Your task to perform on an android device: turn on airplane mode Image 0: 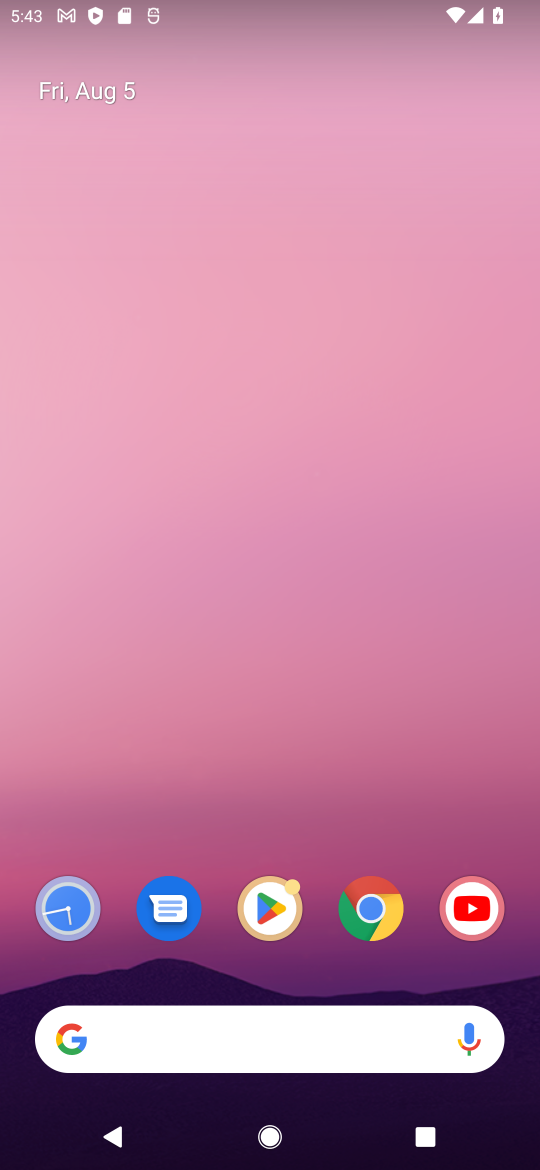
Step 0: drag from (225, 947) to (535, 1165)
Your task to perform on an android device: turn on airplane mode Image 1: 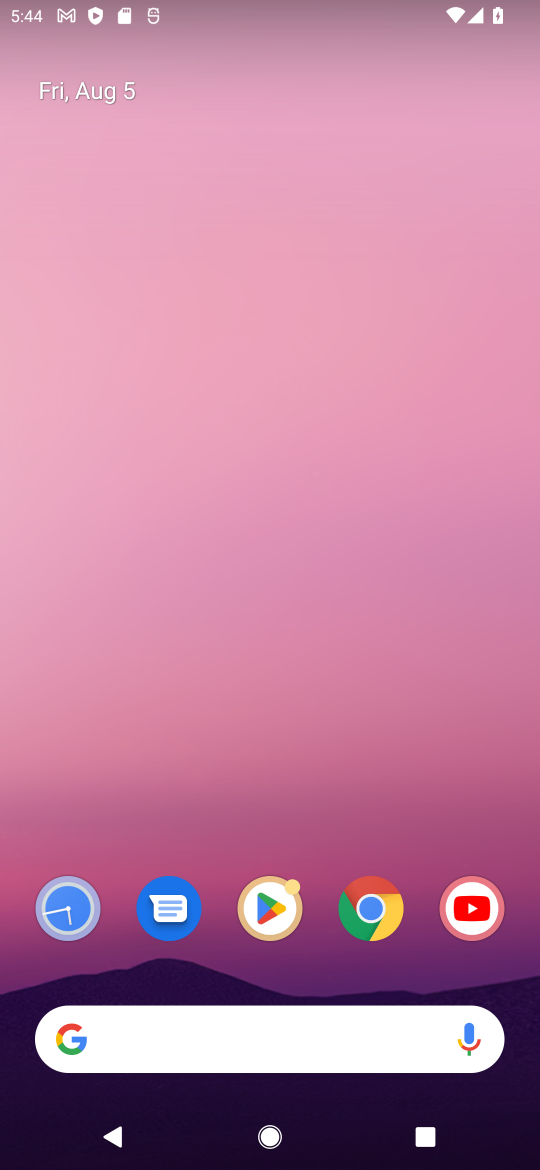
Step 1: click (465, 742)
Your task to perform on an android device: turn on airplane mode Image 2: 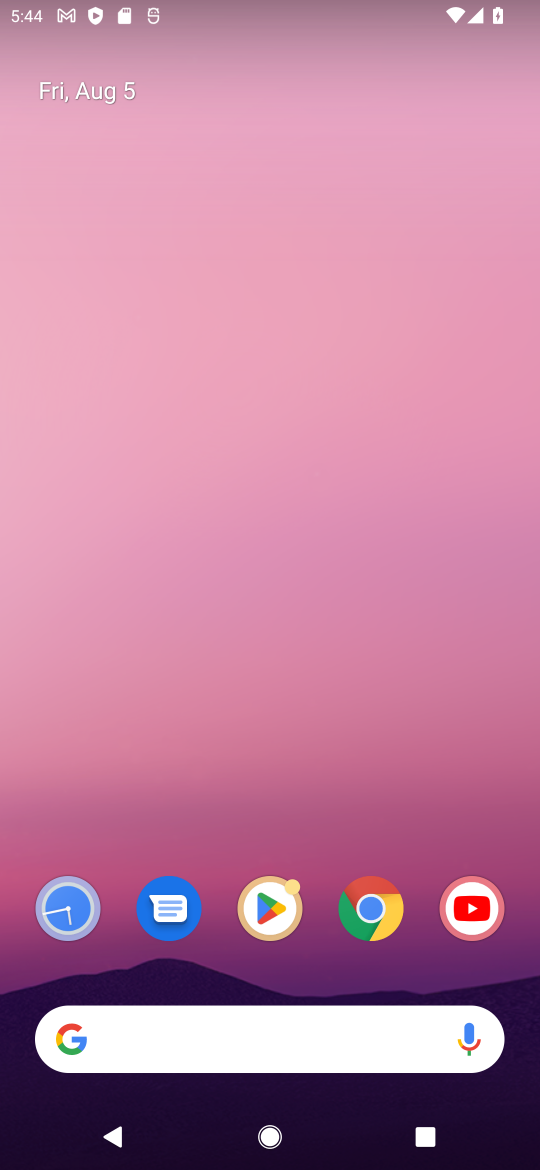
Step 2: drag from (243, 712) to (263, 302)
Your task to perform on an android device: turn on airplane mode Image 3: 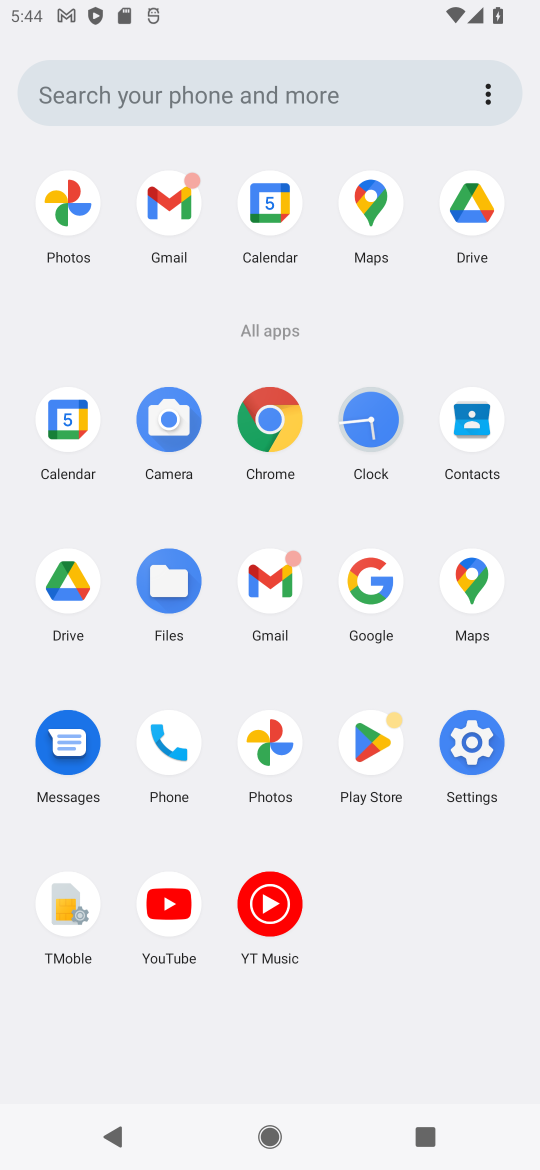
Step 3: click (473, 737)
Your task to perform on an android device: turn on airplane mode Image 4: 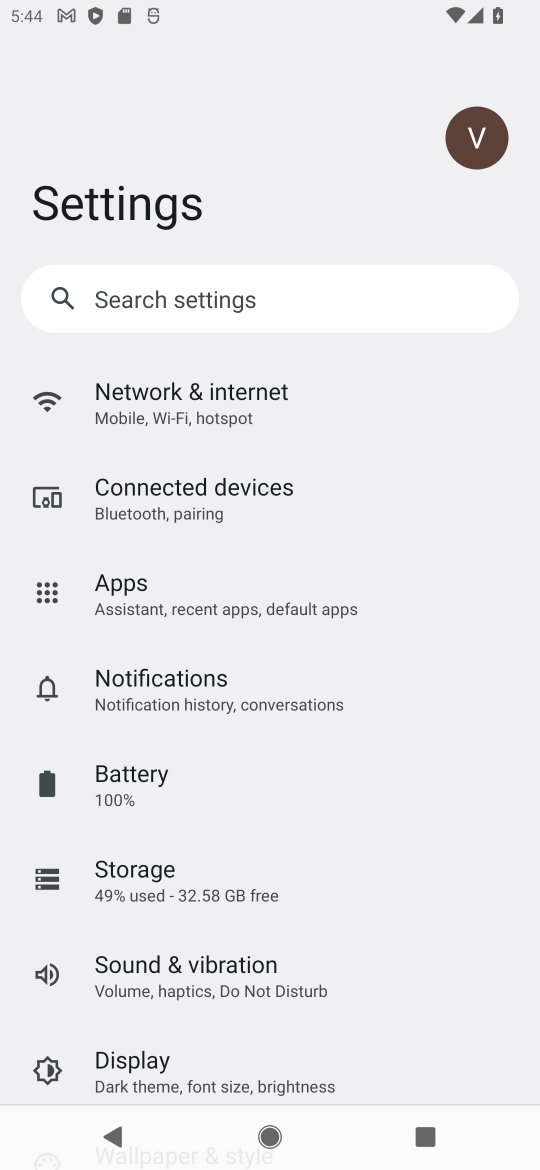
Step 4: click (168, 404)
Your task to perform on an android device: turn on airplane mode Image 5: 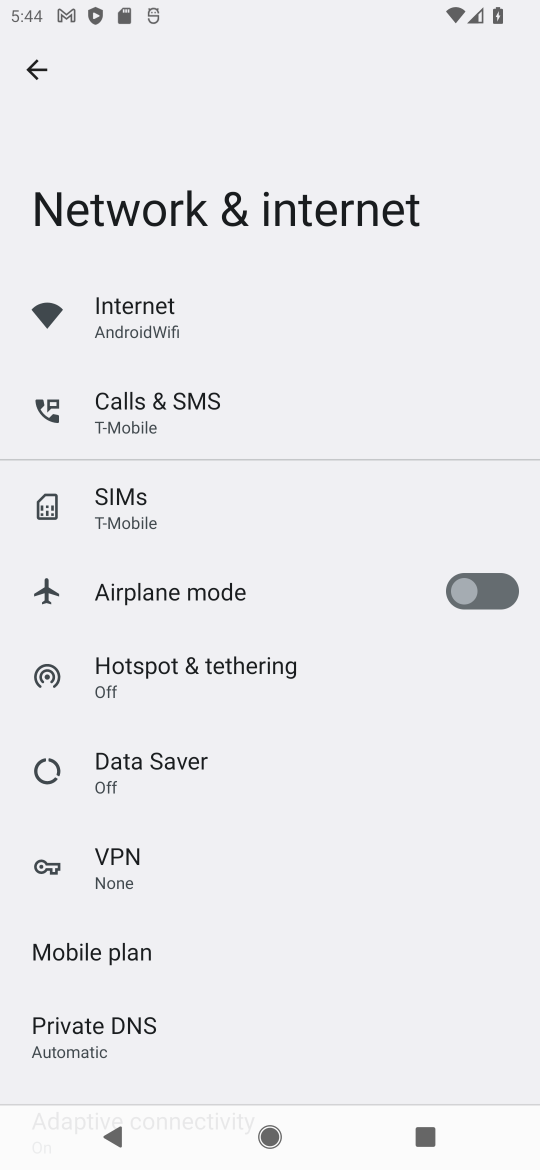
Step 5: click (498, 605)
Your task to perform on an android device: turn on airplane mode Image 6: 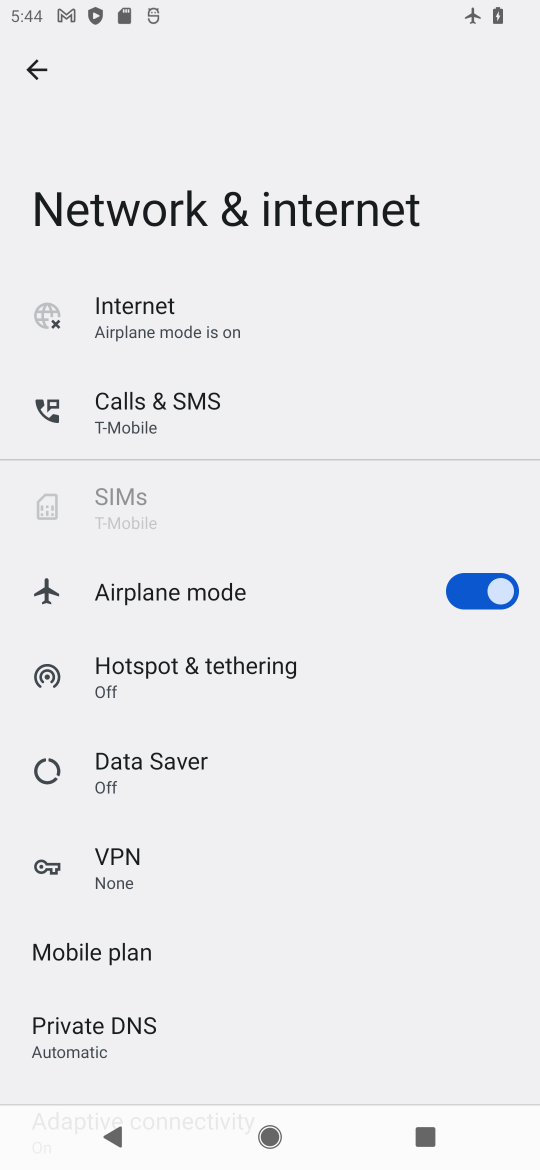
Step 6: task complete